Your task to perform on an android device: Is it going to rain this weekend? Image 0: 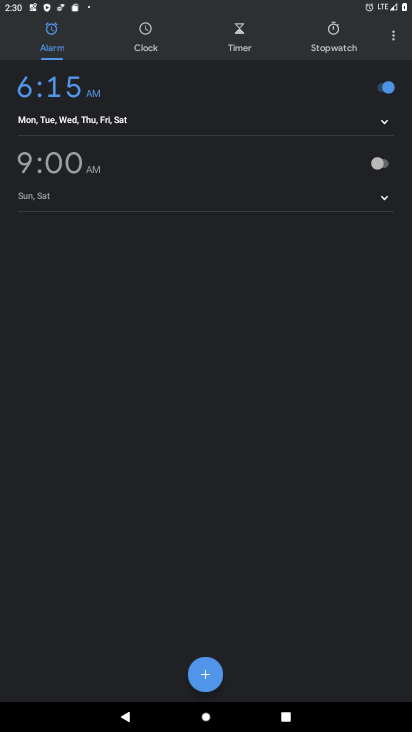
Step 0: press home button
Your task to perform on an android device: Is it going to rain this weekend? Image 1: 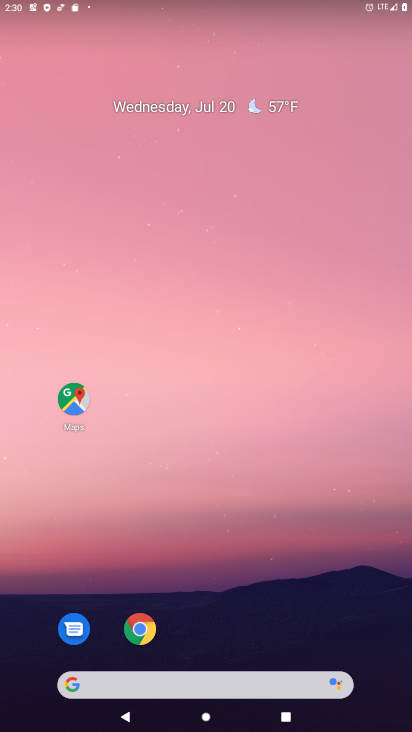
Step 1: click (269, 104)
Your task to perform on an android device: Is it going to rain this weekend? Image 2: 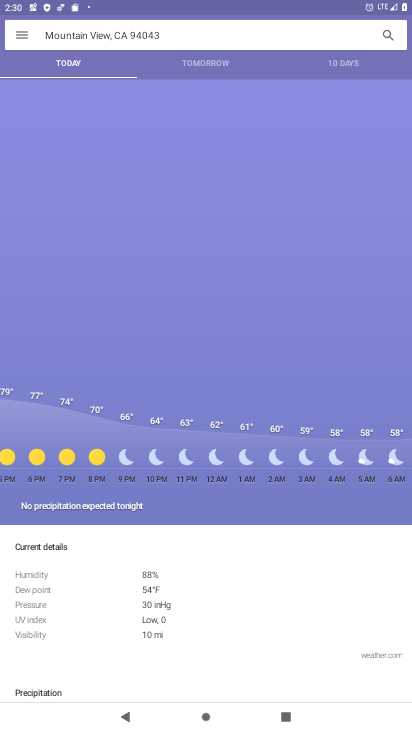
Step 2: click (346, 68)
Your task to perform on an android device: Is it going to rain this weekend? Image 3: 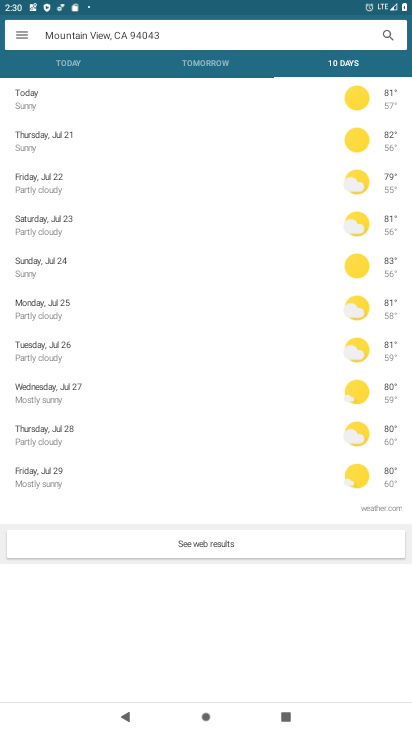
Step 3: task complete